Your task to perform on an android device: check the backup settings in the google photos Image 0: 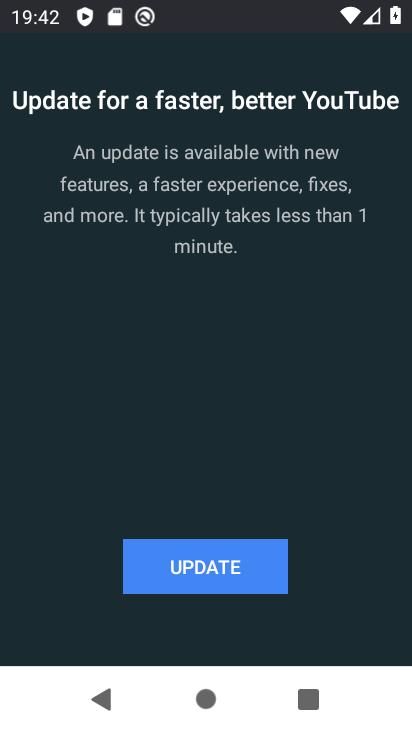
Step 0: press home button
Your task to perform on an android device: check the backup settings in the google photos Image 1: 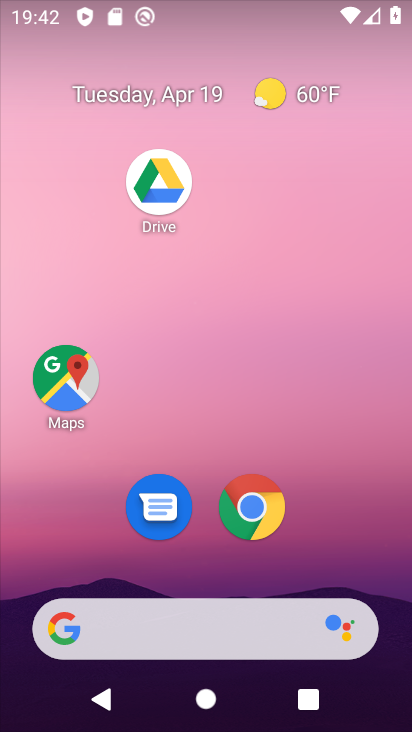
Step 1: drag from (364, 507) to (349, 159)
Your task to perform on an android device: check the backup settings in the google photos Image 2: 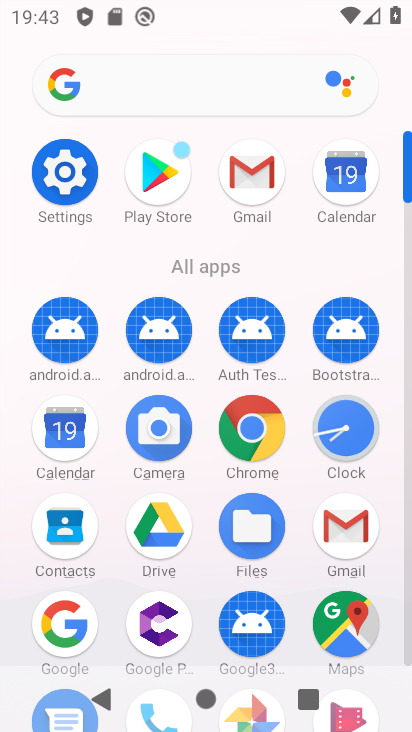
Step 2: drag from (202, 560) to (253, 231)
Your task to perform on an android device: check the backup settings in the google photos Image 3: 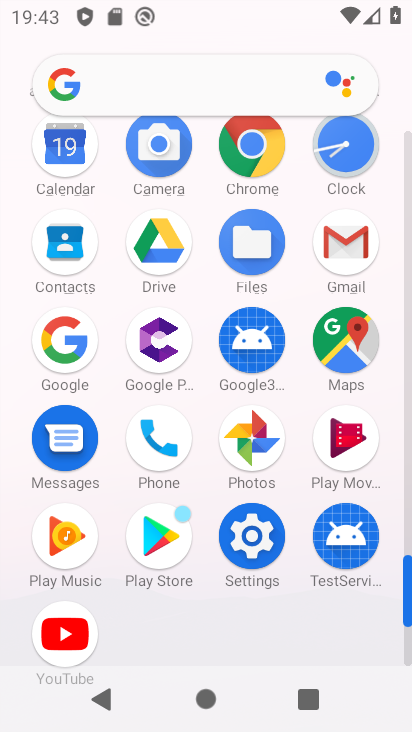
Step 3: click (249, 421)
Your task to perform on an android device: check the backup settings in the google photos Image 4: 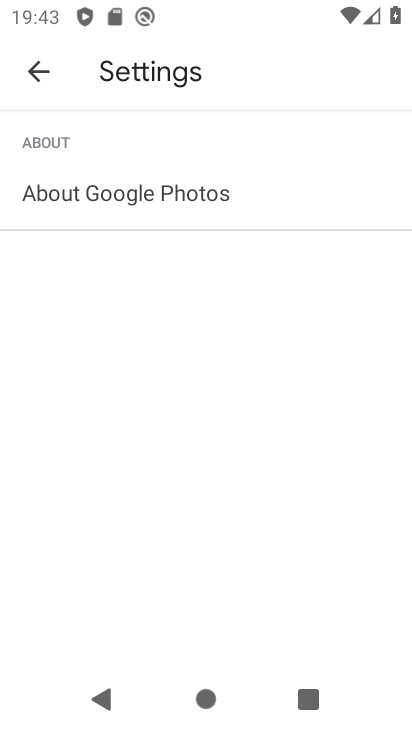
Step 4: click (46, 68)
Your task to perform on an android device: check the backup settings in the google photos Image 5: 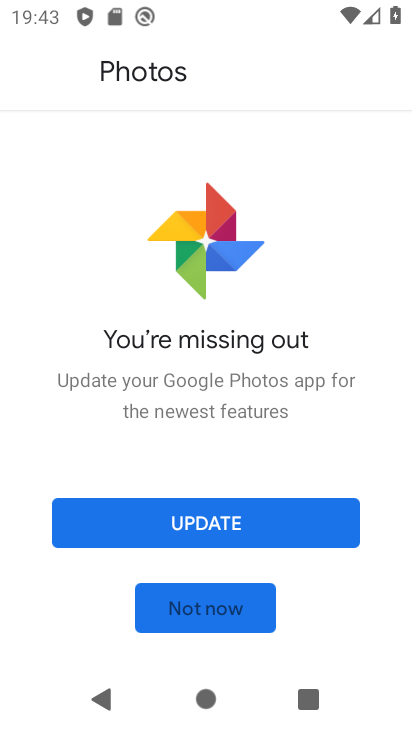
Step 5: click (294, 523)
Your task to perform on an android device: check the backup settings in the google photos Image 6: 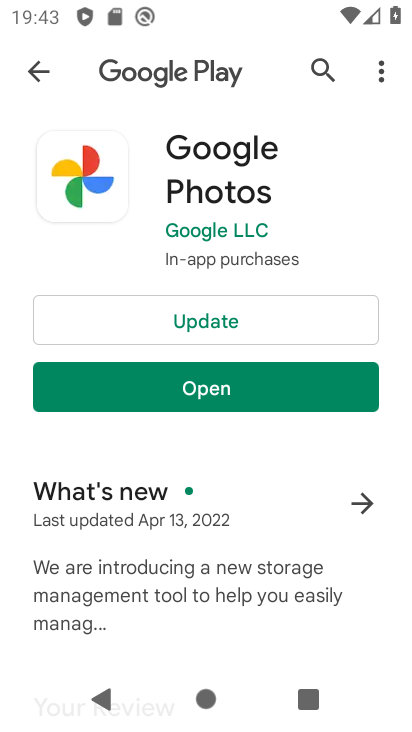
Step 6: click (291, 386)
Your task to perform on an android device: check the backup settings in the google photos Image 7: 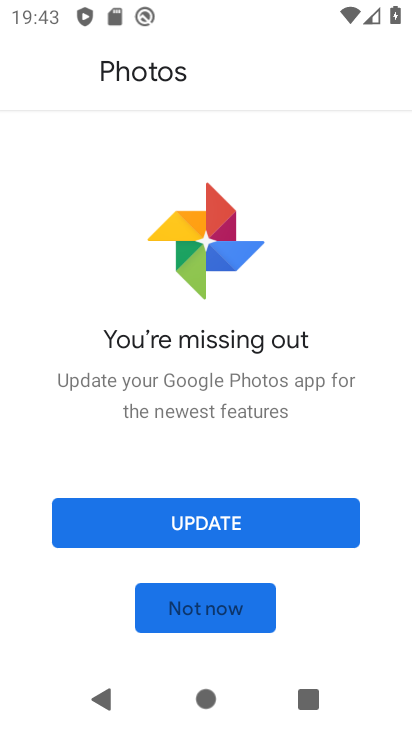
Step 7: click (292, 516)
Your task to perform on an android device: check the backup settings in the google photos Image 8: 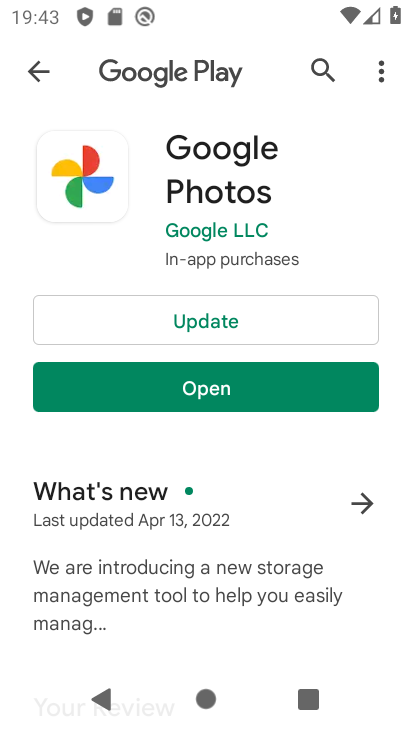
Step 8: click (280, 307)
Your task to perform on an android device: check the backup settings in the google photos Image 9: 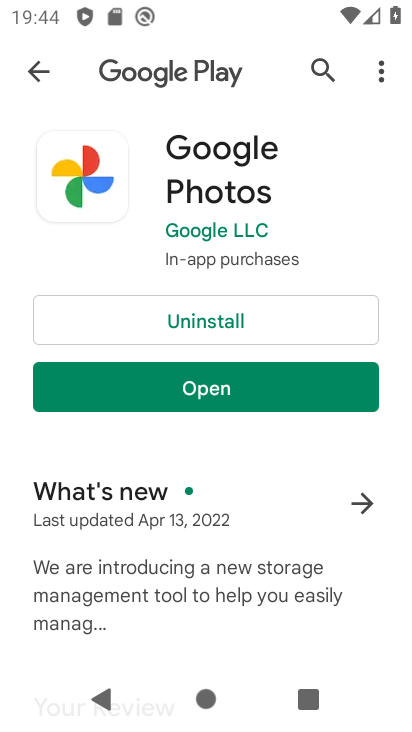
Step 9: click (342, 393)
Your task to perform on an android device: check the backup settings in the google photos Image 10: 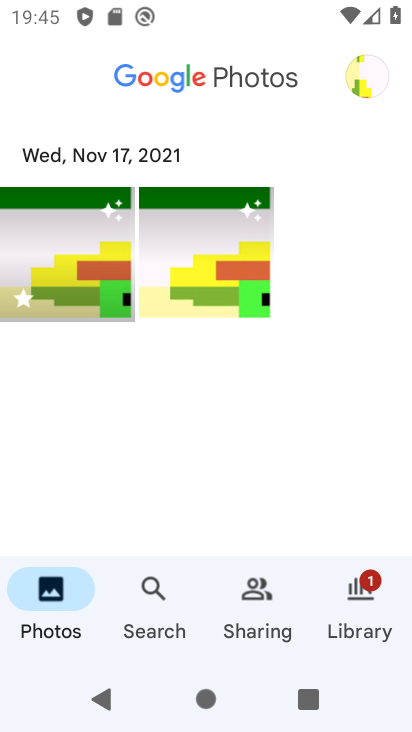
Step 10: click (153, 590)
Your task to perform on an android device: check the backup settings in the google photos Image 11: 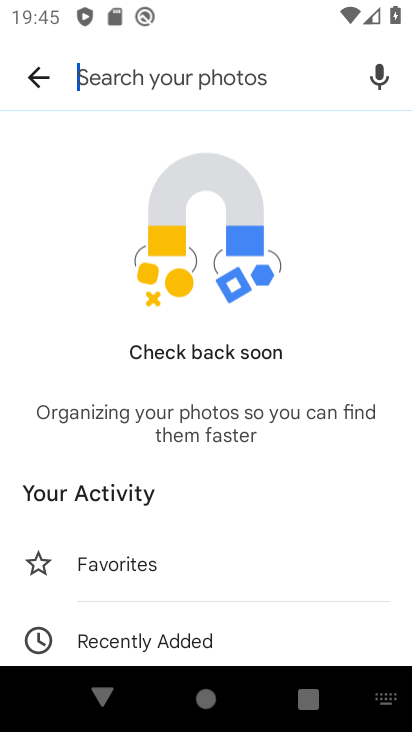
Step 11: drag from (292, 523) to (273, 290)
Your task to perform on an android device: check the backup settings in the google photos Image 12: 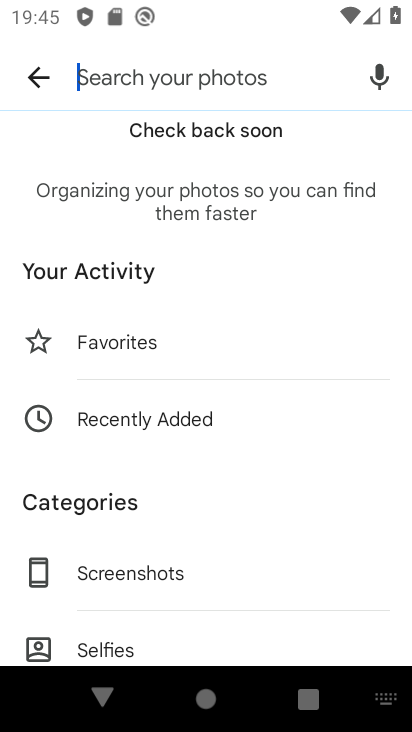
Step 12: drag from (265, 575) to (212, 266)
Your task to perform on an android device: check the backup settings in the google photos Image 13: 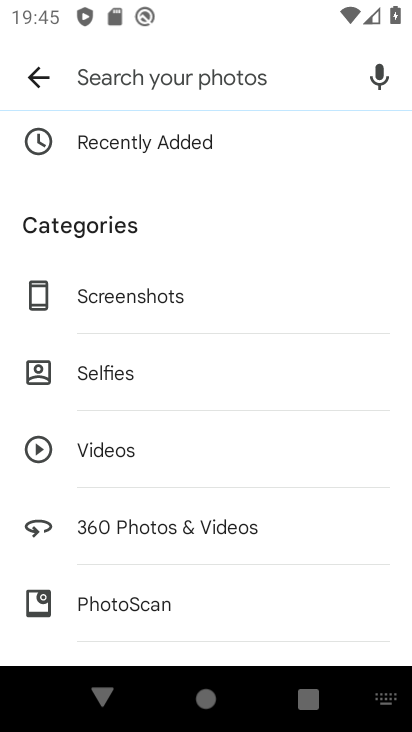
Step 13: drag from (261, 586) to (229, 319)
Your task to perform on an android device: check the backup settings in the google photos Image 14: 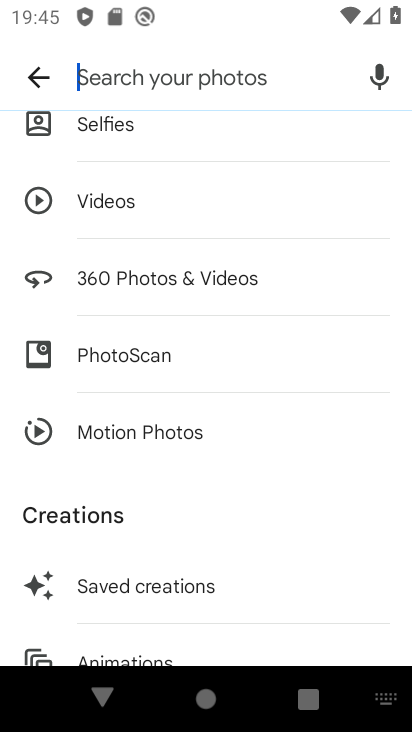
Step 14: drag from (291, 556) to (224, 214)
Your task to perform on an android device: check the backup settings in the google photos Image 15: 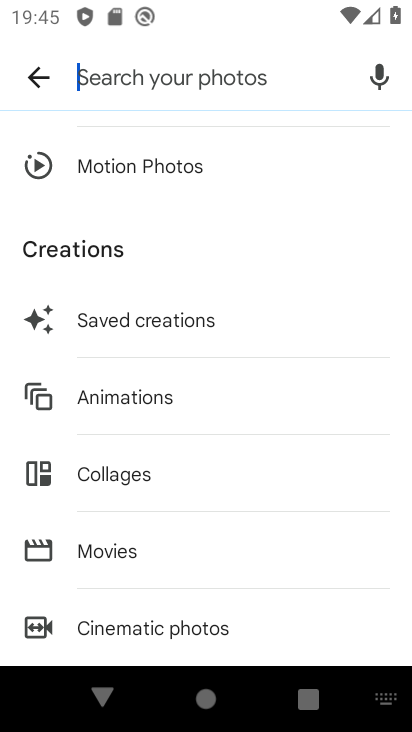
Step 15: drag from (281, 561) to (221, 233)
Your task to perform on an android device: check the backup settings in the google photos Image 16: 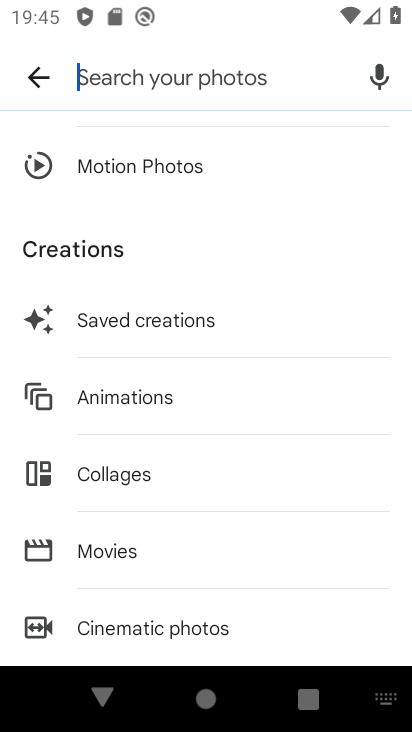
Step 16: type "backup settings"
Your task to perform on an android device: check the backup settings in the google photos Image 17: 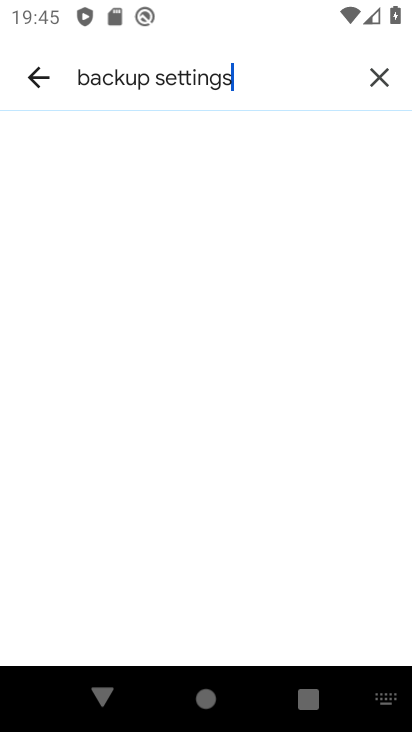
Step 17: click (41, 72)
Your task to perform on an android device: check the backup settings in the google photos Image 18: 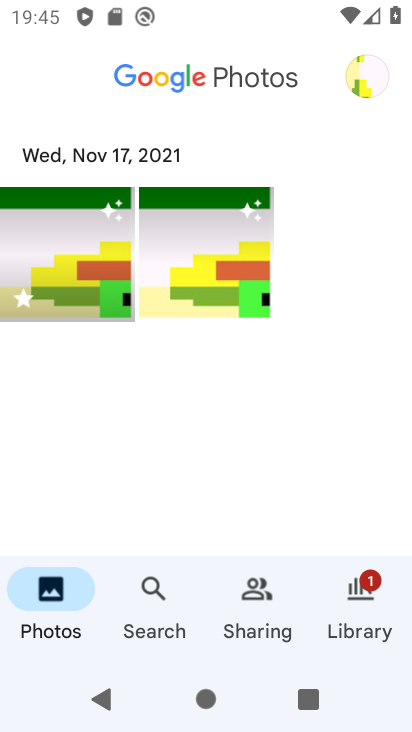
Step 18: drag from (81, 428) to (411, 451)
Your task to perform on an android device: check the backup settings in the google photos Image 19: 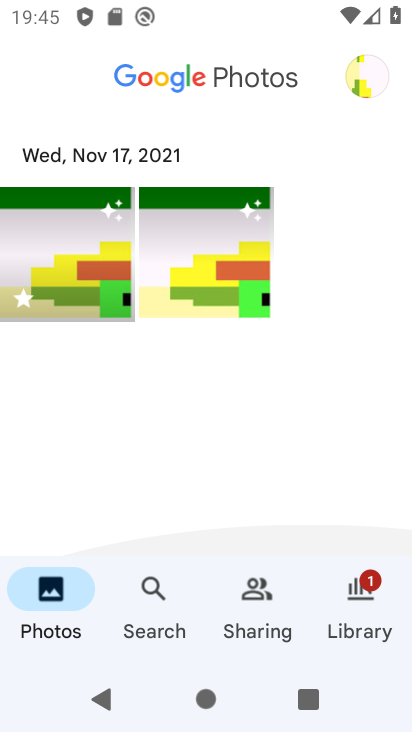
Step 19: drag from (52, 350) to (401, 367)
Your task to perform on an android device: check the backup settings in the google photos Image 20: 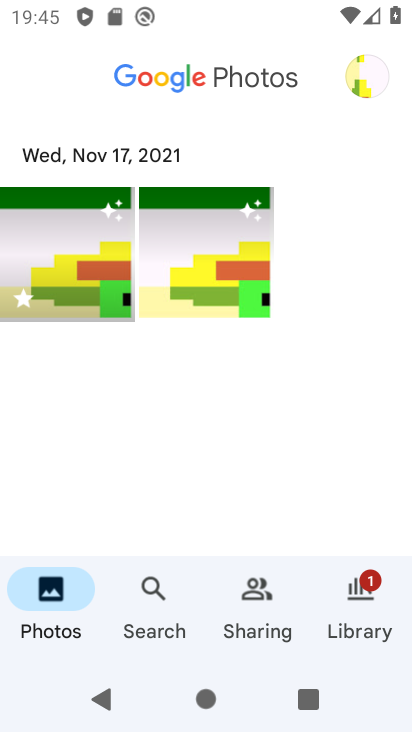
Step 20: drag from (381, 363) to (5, 348)
Your task to perform on an android device: check the backup settings in the google photos Image 21: 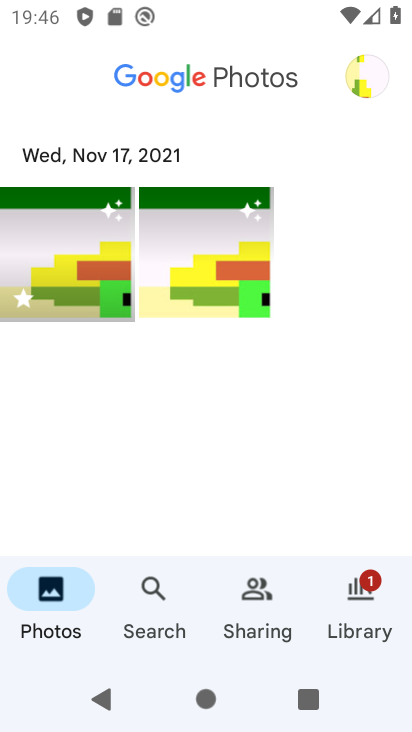
Step 21: click (370, 76)
Your task to perform on an android device: check the backup settings in the google photos Image 22: 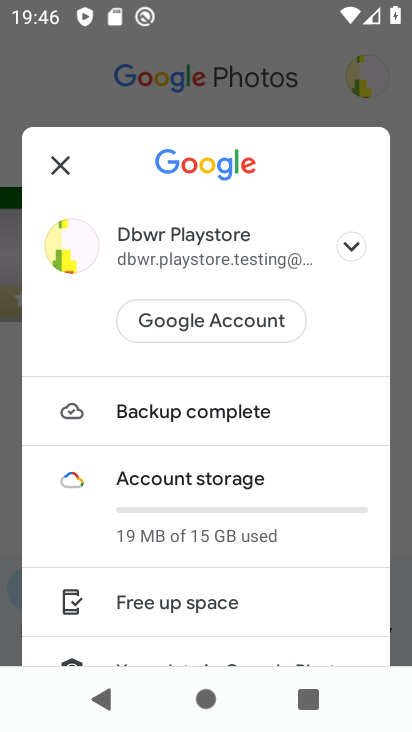
Step 22: click (205, 244)
Your task to perform on an android device: check the backup settings in the google photos Image 23: 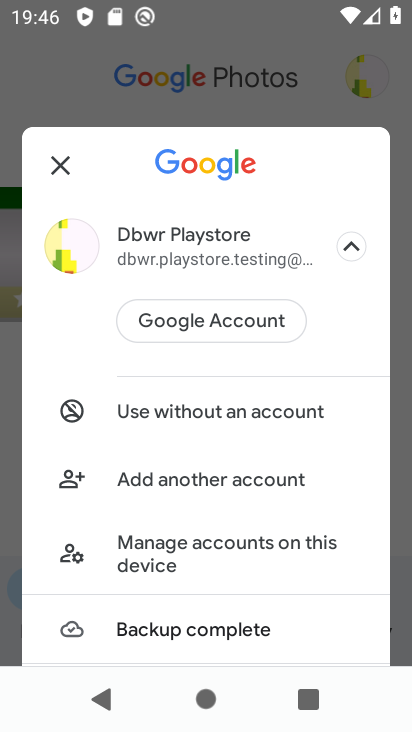
Step 23: click (205, 244)
Your task to perform on an android device: check the backup settings in the google photos Image 24: 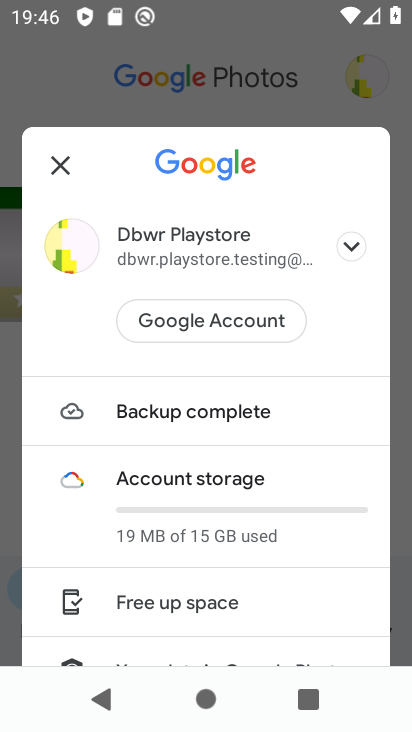
Step 24: drag from (233, 596) to (247, 308)
Your task to perform on an android device: check the backup settings in the google photos Image 25: 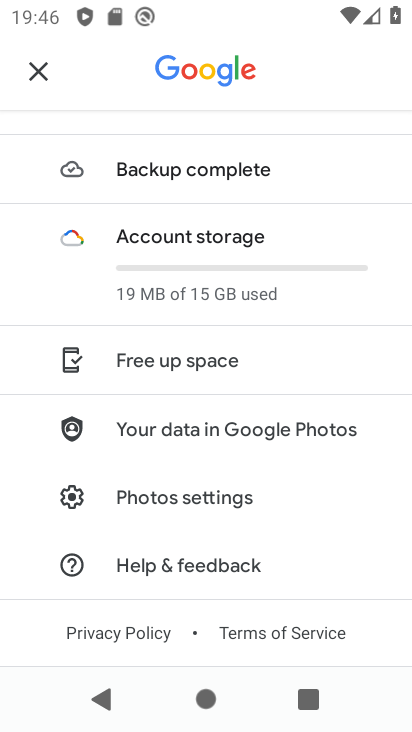
Step 25: click (196, 487)
Your task to perform on an android device: check the backup settings in the google photos Image 26: 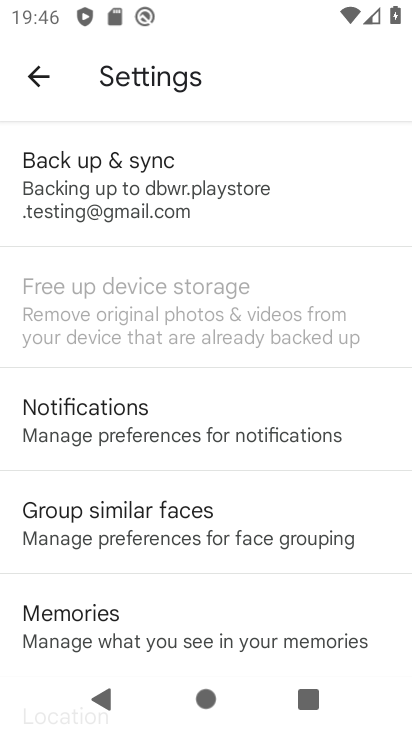
Step 26: click (181, 186)
Your task to perform on an android device: check the backup settings in the google photos Image 27: 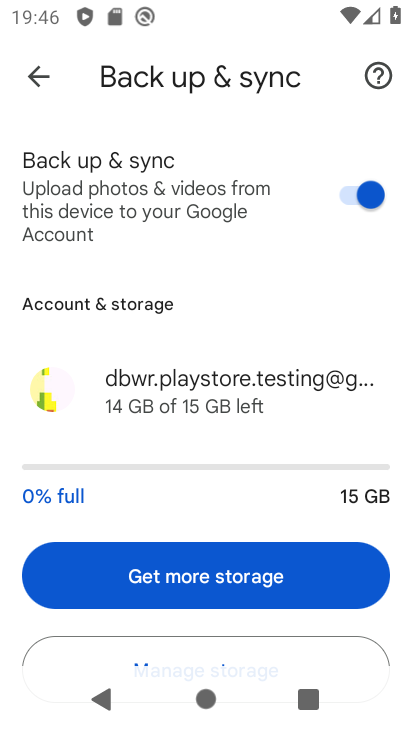
Step 27: task complete